Your task to perform on an android device: see sites visited before in the chrome app Image 0: 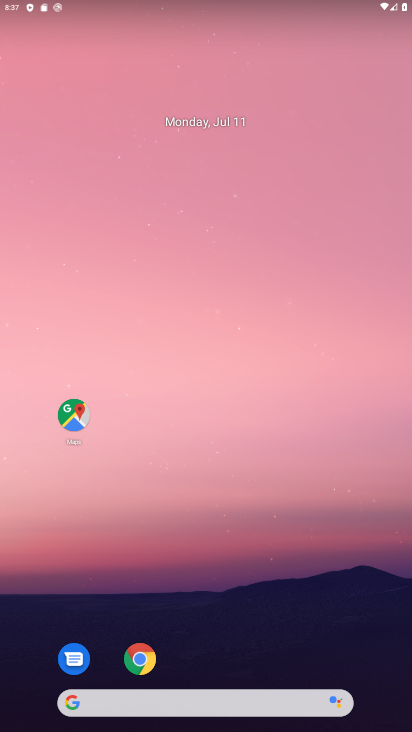
Step 0: click (147, 666)
Your task to perform on an android device: see sites visited before in the chrome app Image 1: 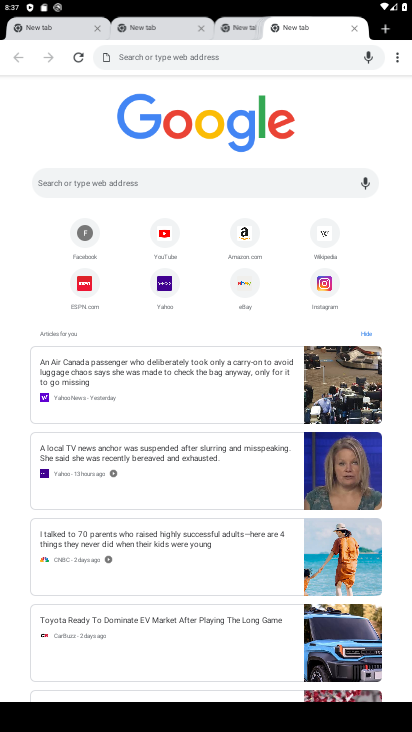
Step 1: click (395, 56)
Your task to perform on an android device: see sites visited before in the chrome app Image 2: 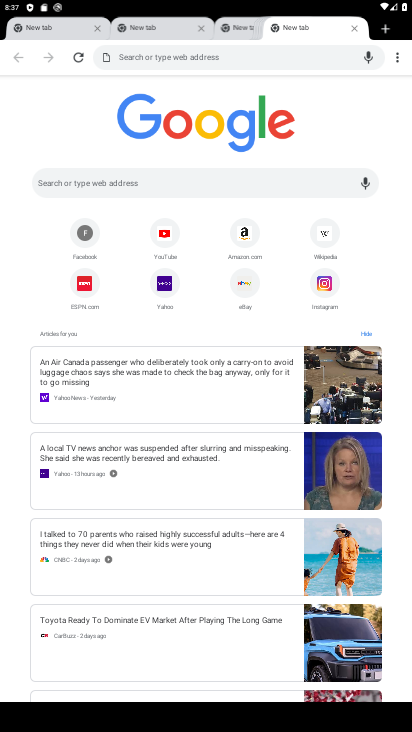
Step 2: click (392, 55)
Your task to perform on an android device: see sites visited before in the chrome app Image 3: 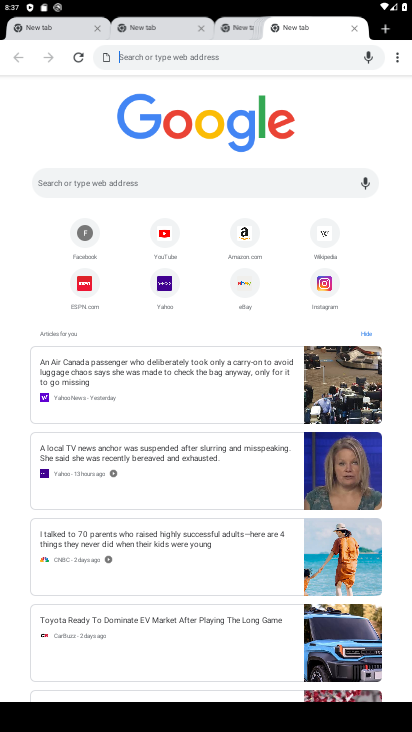
Step 3: task complete